Your task to perform on an android device: Turn on the flashlight Image 0: 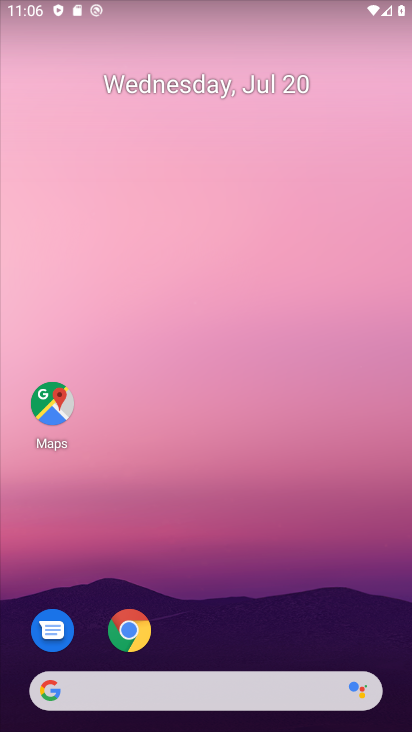
Step 0: press home button
Your task to perform on an android device: Turn on the flashlight Image 1: 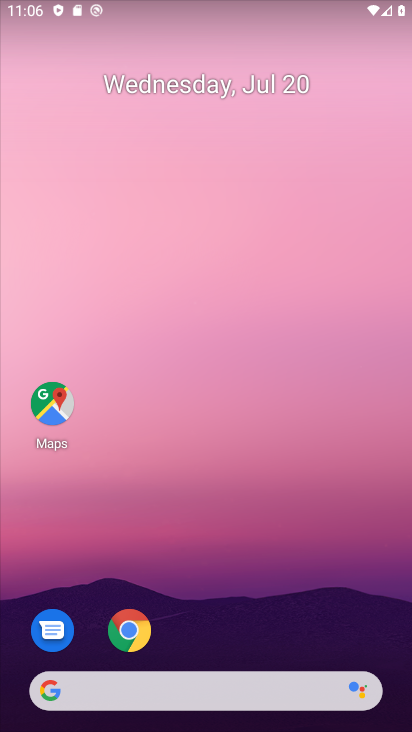
Step 1: drag from (218, 653) to (262, 47)
Your task to perform on an android device: Turn on the flashlight Image 2: 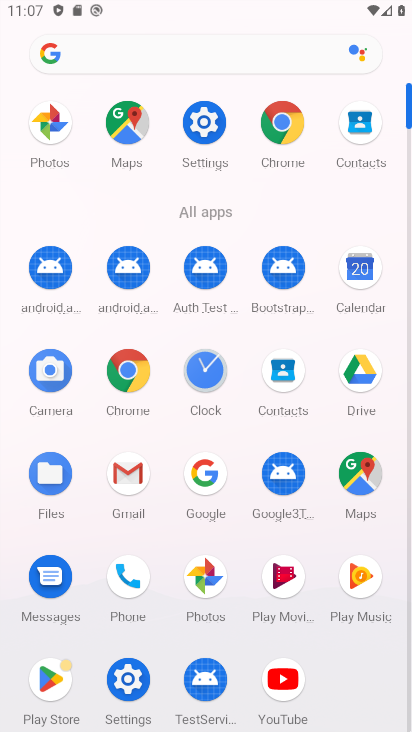
Step 2: click (199, 115)
Your task to perform on an android device: Turn on the flashlight Image 3: 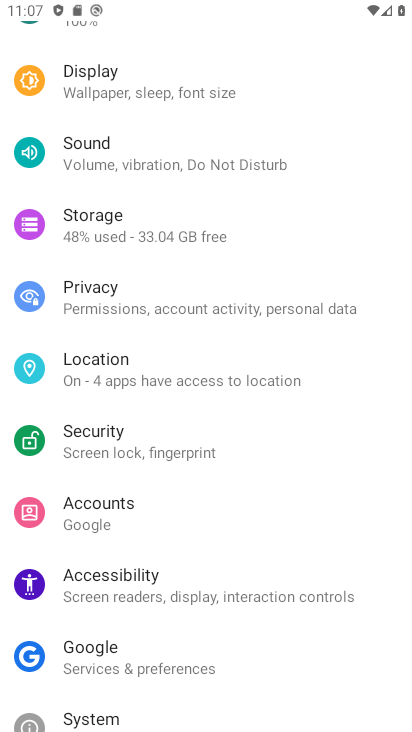
Step 3: drag from (226, 130) to (208, 656)
Your task to perform on an android device: Turn on the flashlight Image 4: 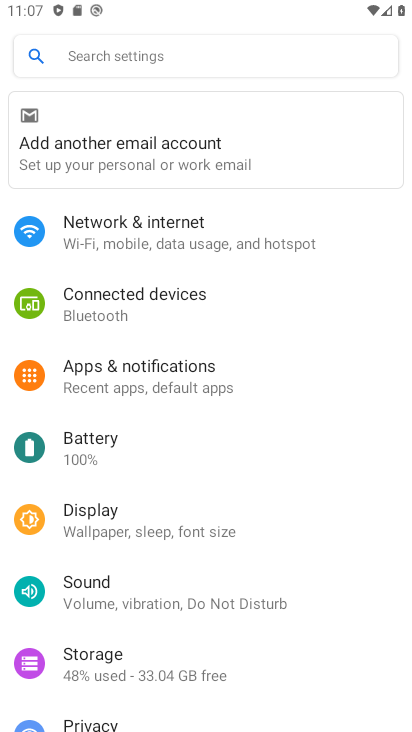
Step 4: click (132, 49)
Your task to perform on an android device: Turn on the flashlight Image 5: 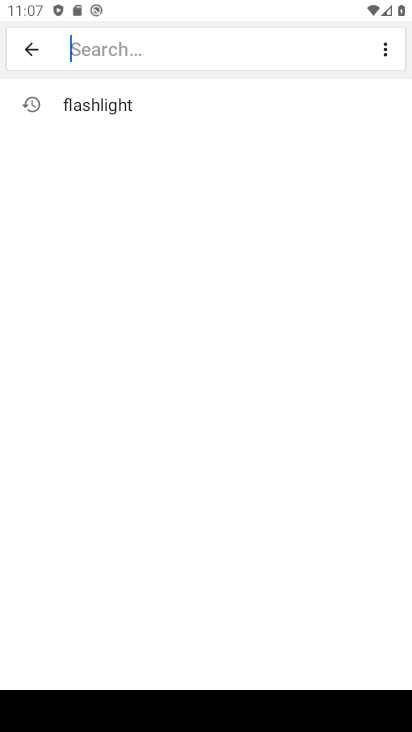
Step 5: click (99, 106)
Your task to perform on an android device: Turn on the flashlight Image 6: 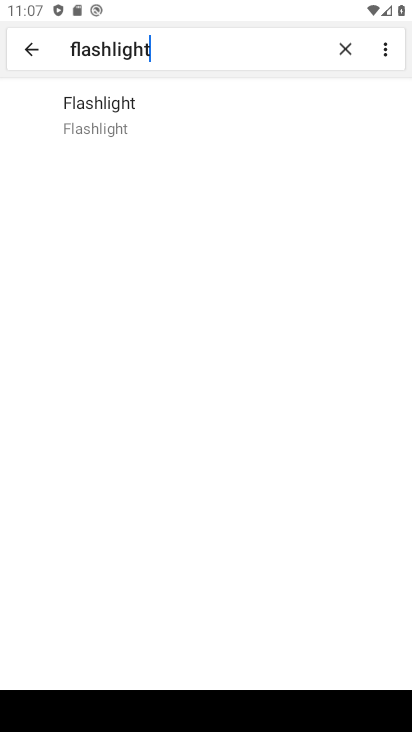
Step 6: task complete